Your task to perform on an android device: Go to Maps Image 0: 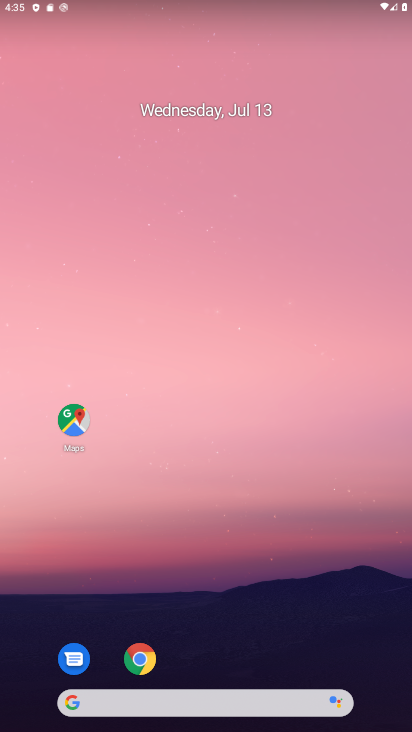
Step 0: drag from (282, 627) to (309, 25)
Your task to perform on an android device: Go to Maps Image 1: 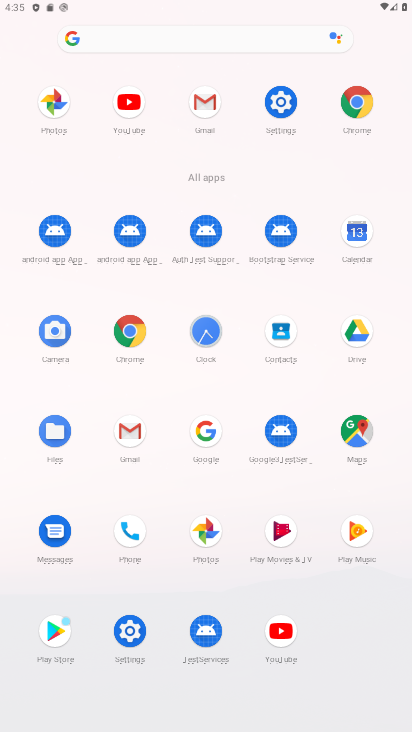
Step 1: click (362, 429)
Your task to perform on an android device: Go to Maps Image 2: 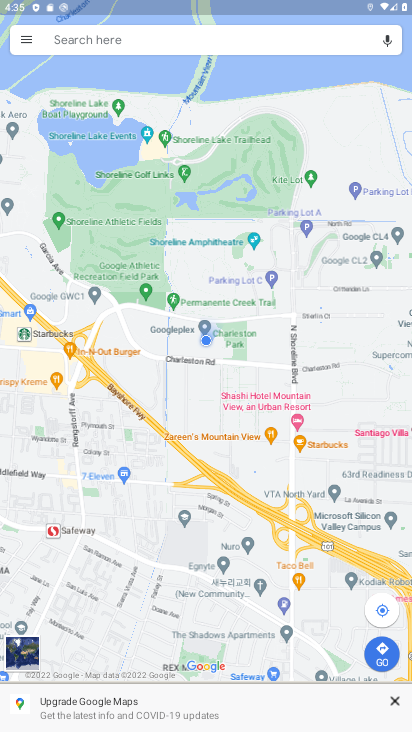
Step 2: task complete